Your task to perform on an android device: Go to CNN.com Image 0: 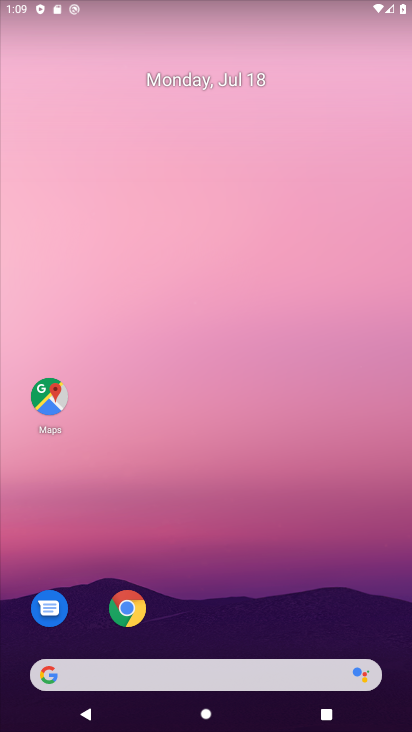
Step 0: click (122, 612)
Your task to perform on an android device: Go to CNN.com Image 1: 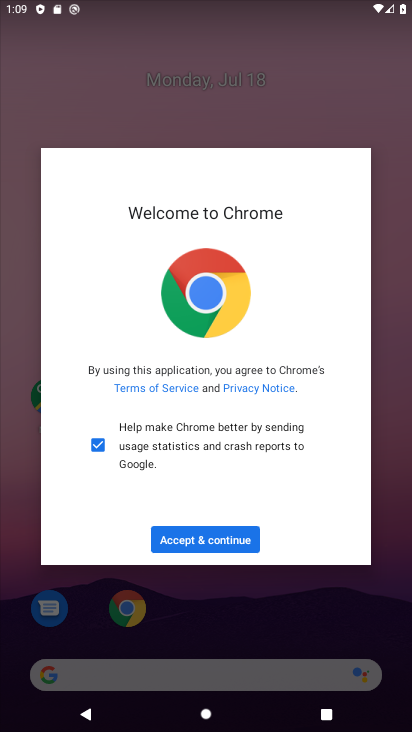
Step 1: click (224, 537)
Your task to perform on an android device: Go to CNN.com Image 2: 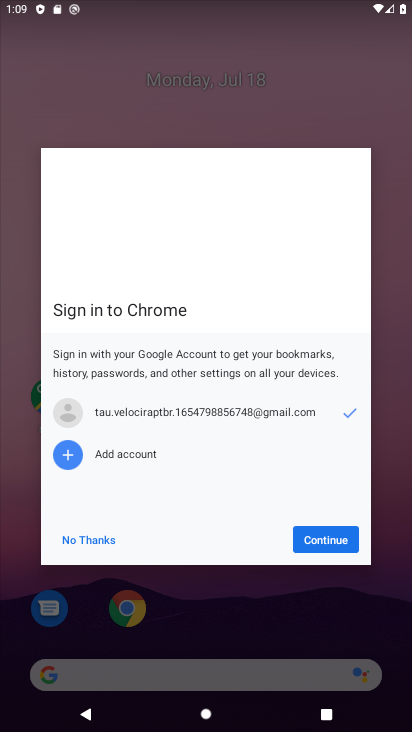
Step 2: click (301, 537)
Your task to perform on an android device: Go to CNN.com Image 3: 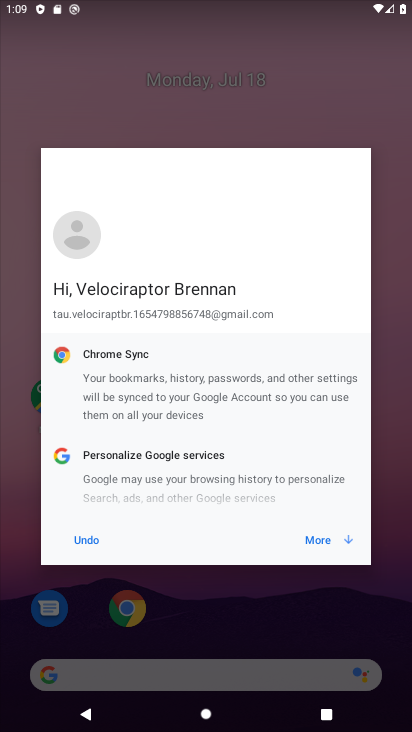
Step 3: click (317, 535)
Your task to perform on an android device: Go to CNN.com Image 4: 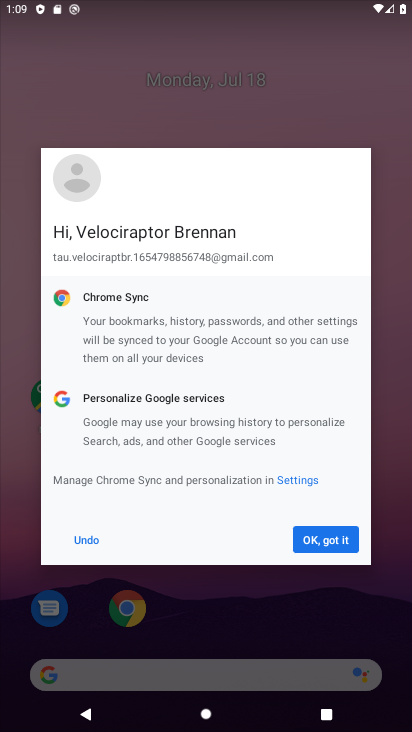
Step 4: click (317, 535)
Your task to perform on an android device: Go to CNN.com Image 5: 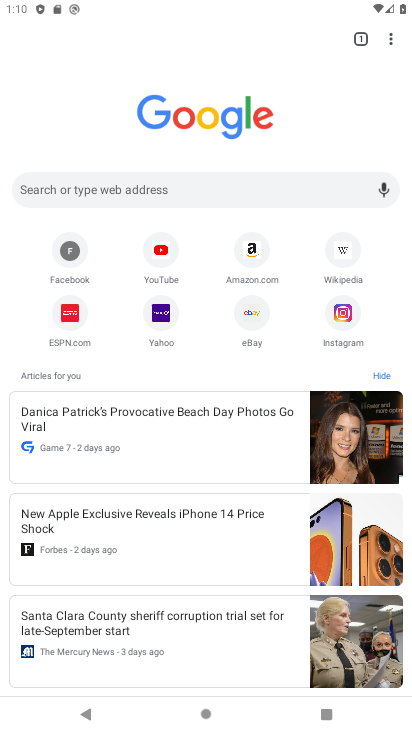
Step 5: click (224, 186)
Your task to perform on an android device: Go to CNN.com Image 6: 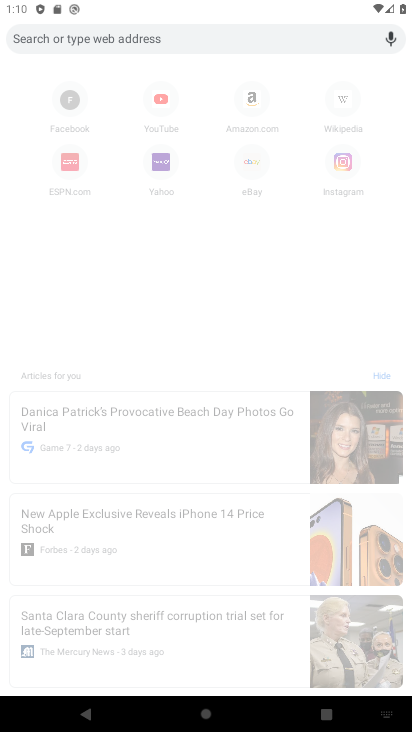
Step 6: type "CNN.com"
Your task to perform on an android device: Go to CNN.com Image 7: 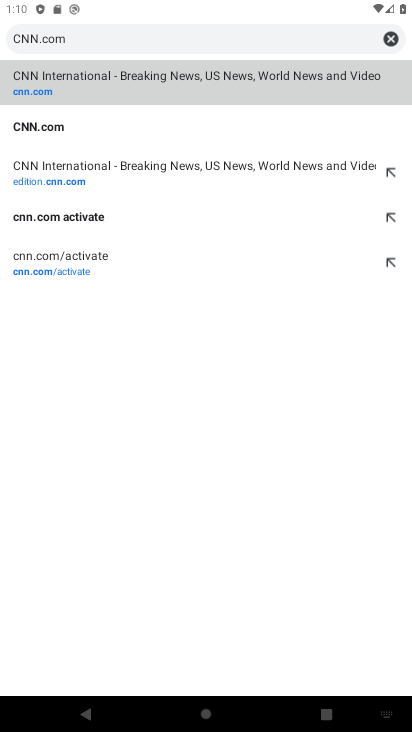
Step 7: click (115, 73)
Your task to perform on an android device: Go to CNN.com Image 8: 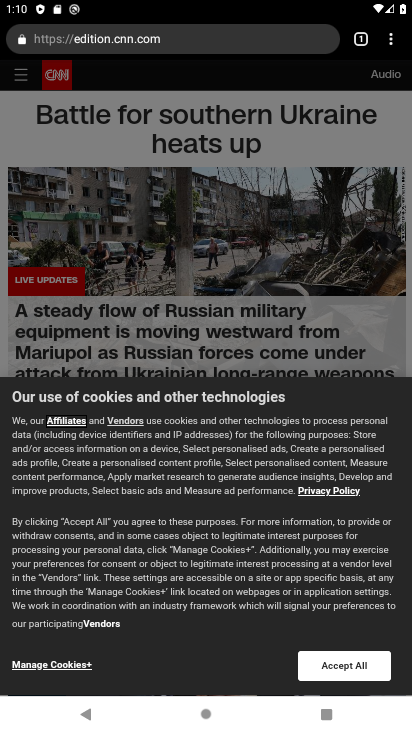
Step 8: task complete